Your task to perform on an android device: Go to eBay Image 0: 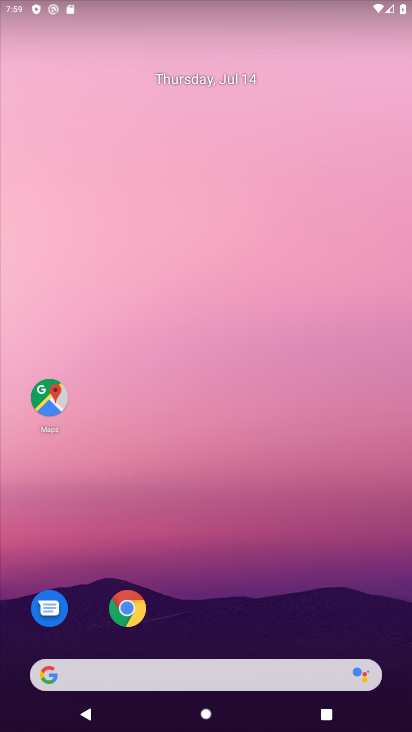
Step 0: click (131, 610)
Your task to perform on an android device: Go to eBay Image 1: 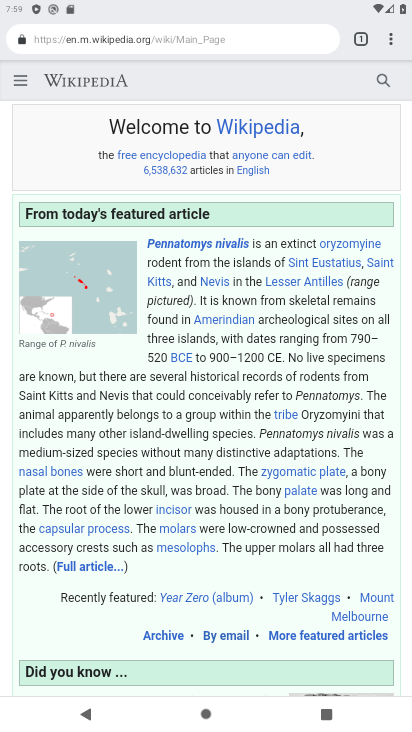
Step 1: click (390, 36)
Your task to perform on an android device: Go to eBay Image 2: 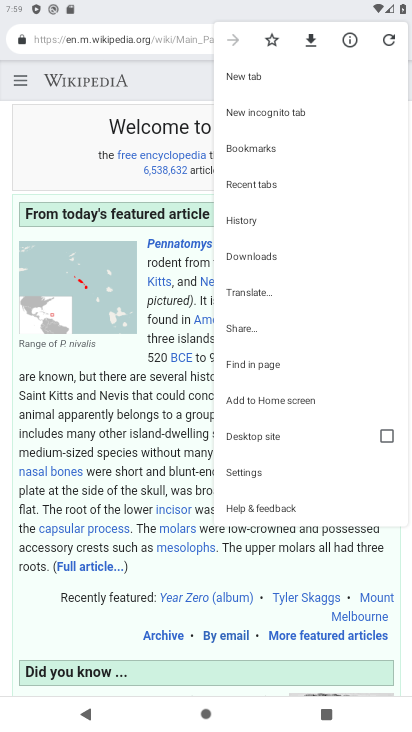
Step 2: click (258, 74)
Your task to perform on an android device: Go to eBay Image 3: 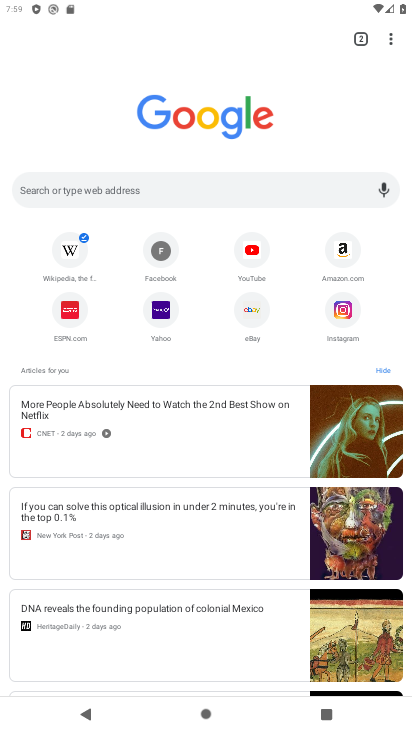
Step 3: click (248, 309)
Your task to perform on an android device: Go to eBay Image 4: 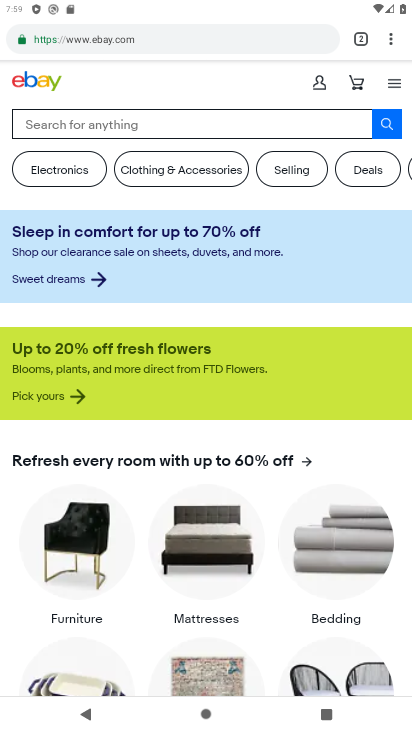
Step 4: task complete